Your task to perform on an android device: toggle priority inbox in the gmail app Image 0: 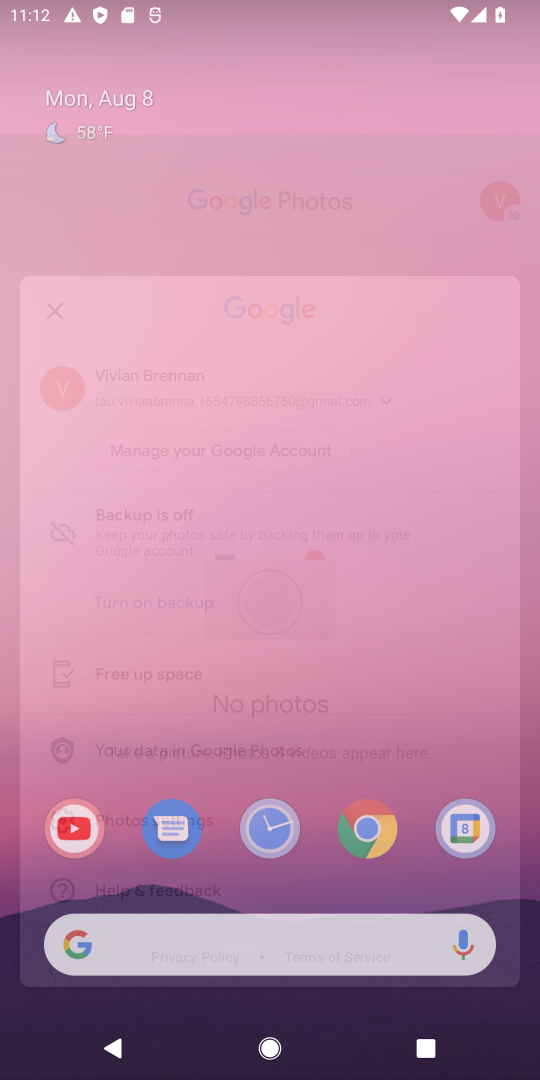
Step 0: press home button
Your task to perform on an android device: toggle priority inbox in the gmail app Image 1: 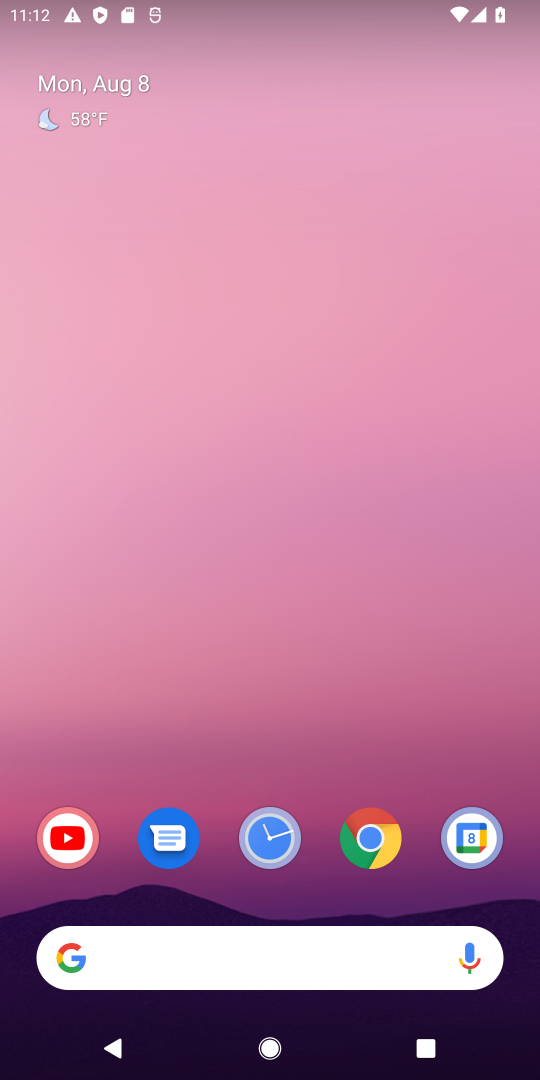
Step 1: drag from (222, 902) to (287, 45)
Your task to perform on an android device: toggle priority inbox in the gmail app Image 2: 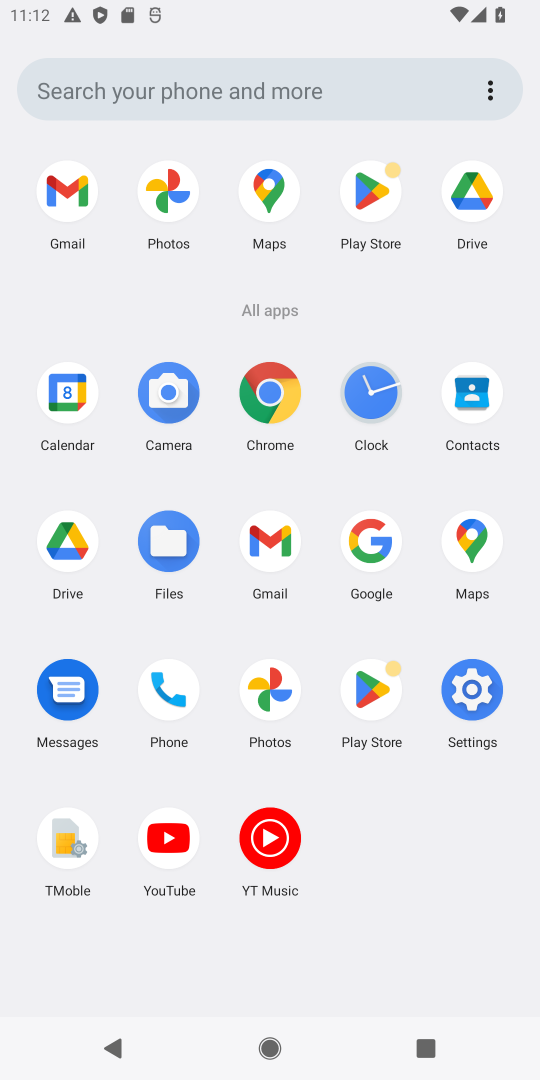
Step 2: click (275, 533)
Your task to perform on an android device: toggle priority inbox in the gmail app Image 3: 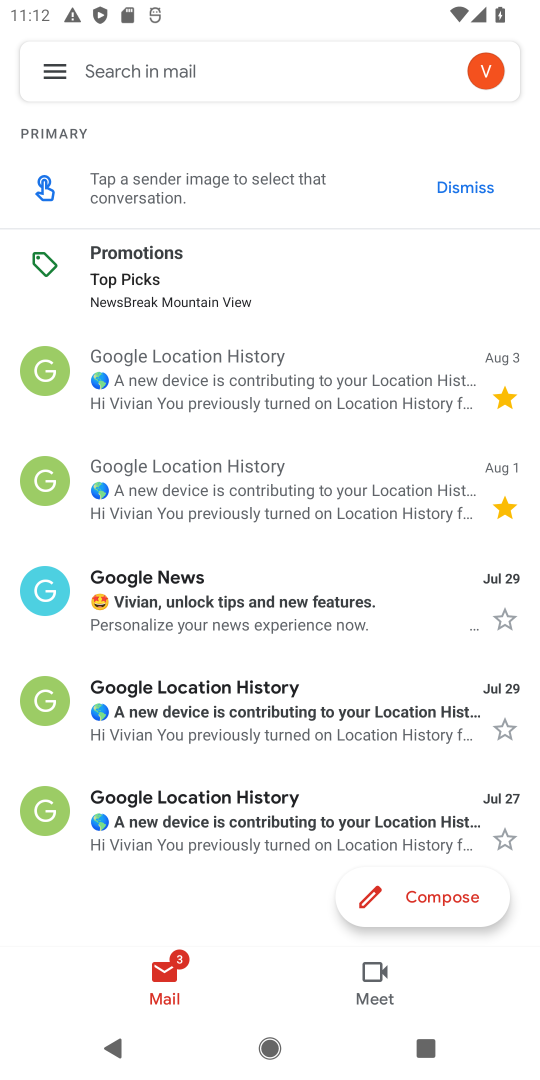
Step 3: click (59, 74)
Your task to perform on an android device: toggle priority inbox in the gmail app Image 4: 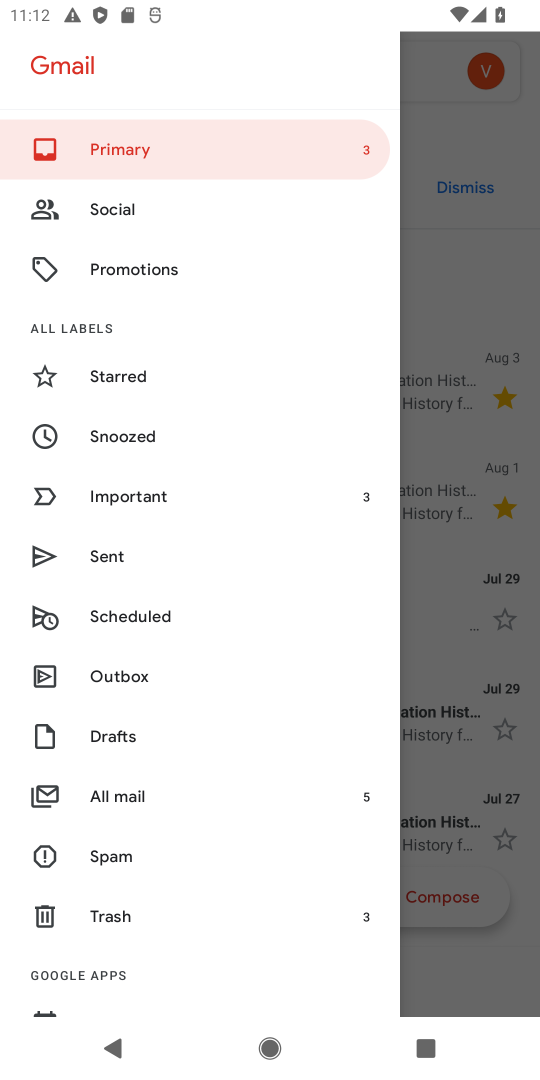
Step 4: drag from (225, 951) to (189, 55)
Your task to perform on an android device: toggle priority inbox in the gmail app Image 5: 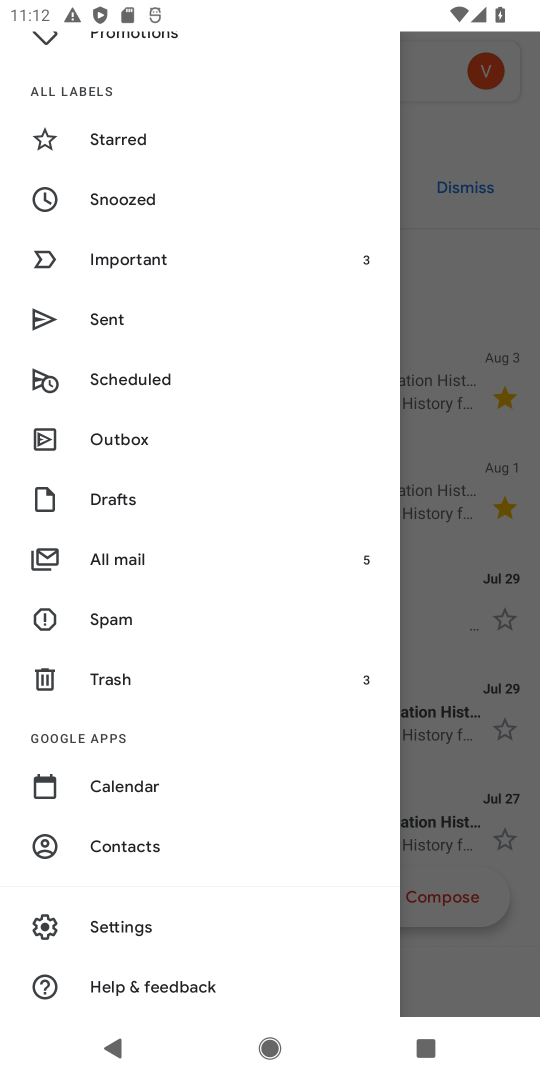
Step 5: click (120, 930)
Your task to perform on an android device: toggle priority inbox in the gmail app Image 6: 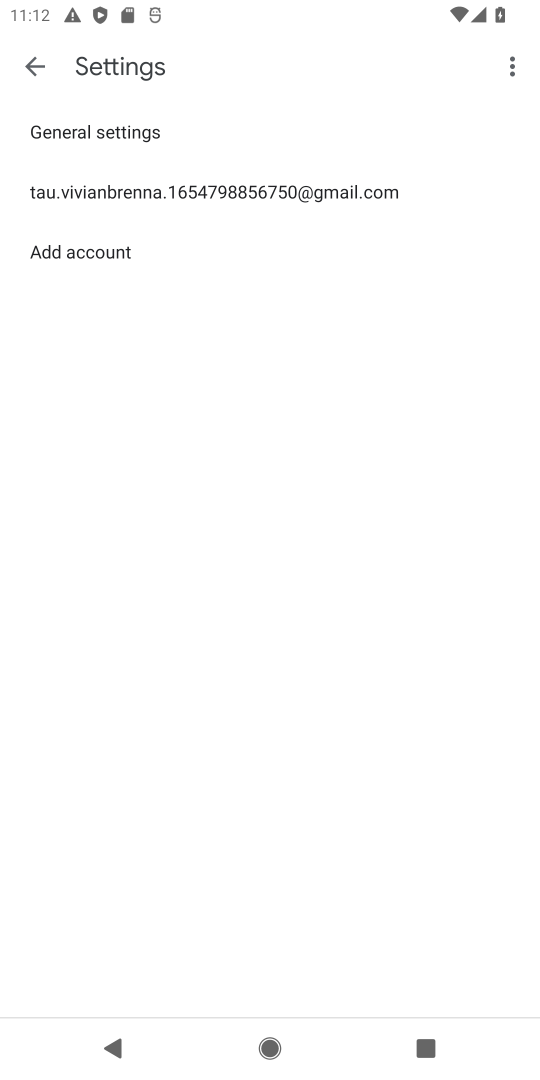
Step 6: click (203, 193)
Your task to perform on an android device: toggle priority inbox in the gmail app Image 7: 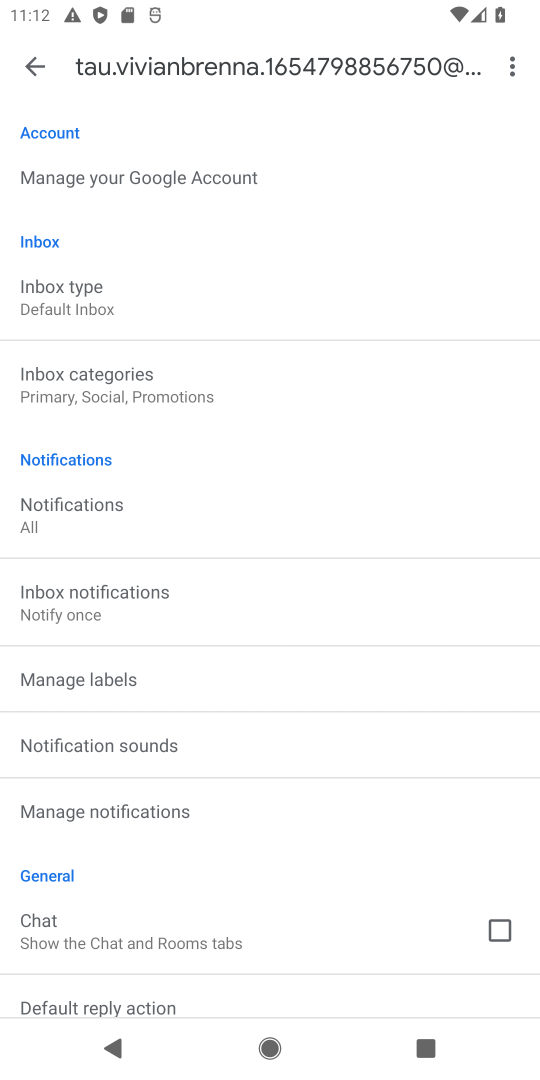
Step 7: click (88, 295)
Your task to perform on an android device: toggle priority inbox in the gmail app Image 8: 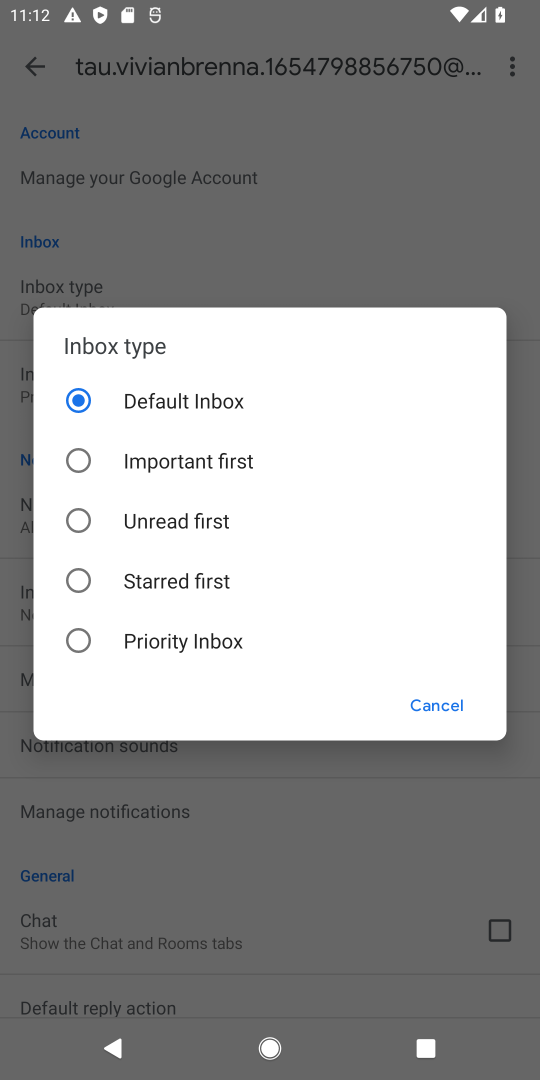
Step 8: click (71, 642)
Your task to perform on an android device: toggle priority inbox in the gmail app Image 9: 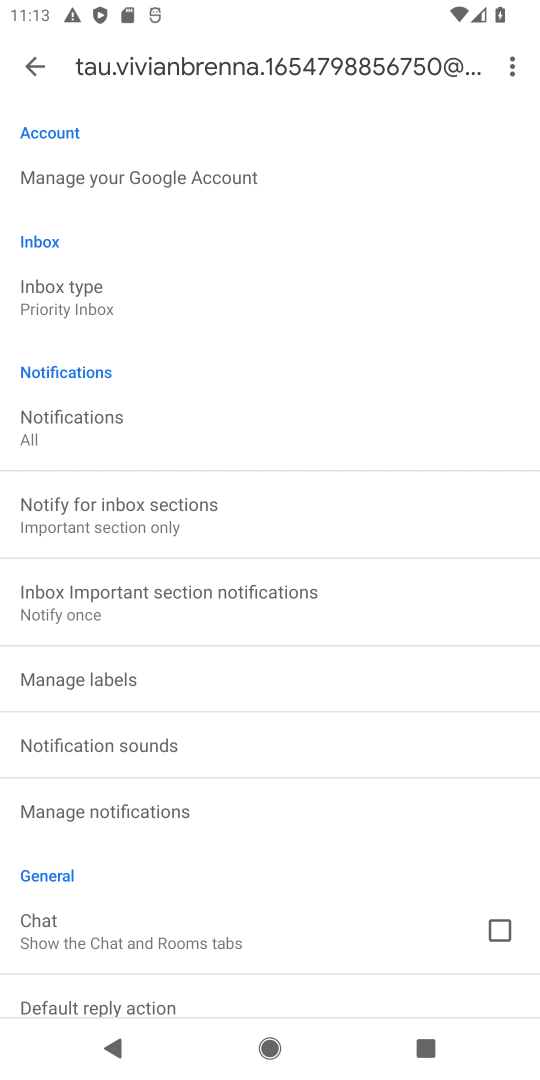
Step 9: task complete